Your task to perform on an android device: What's the weather? Image 0: 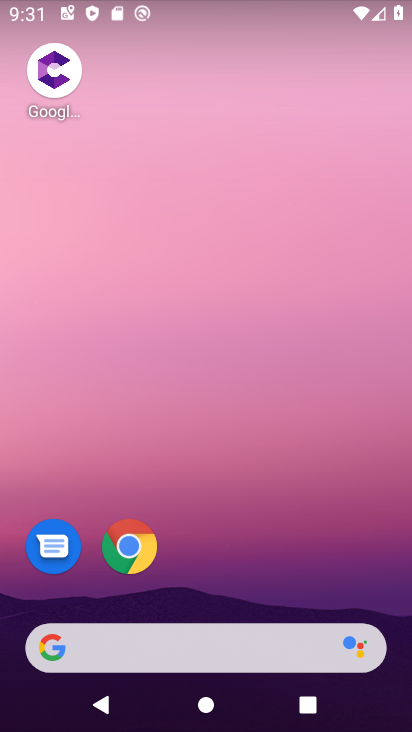
Step 0: drag from (287, 490) to (113, 25)
Your task to perform on an android device: What's the weather? Image 1: 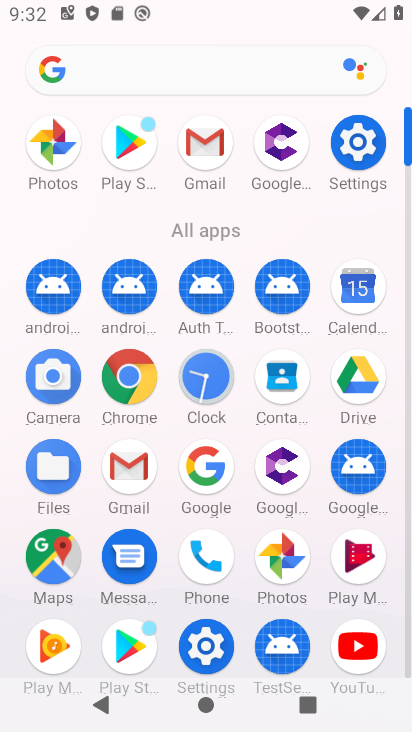
Step 1: click (216, 478)
Your task to perform on an android device: What's the weather? Image 2: 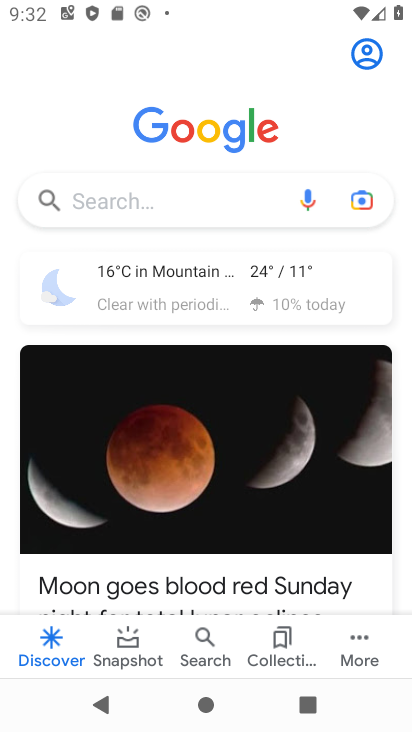
Step 2: click (281, 304)
Your task to perform on an android device: What's the weather? Image 3: 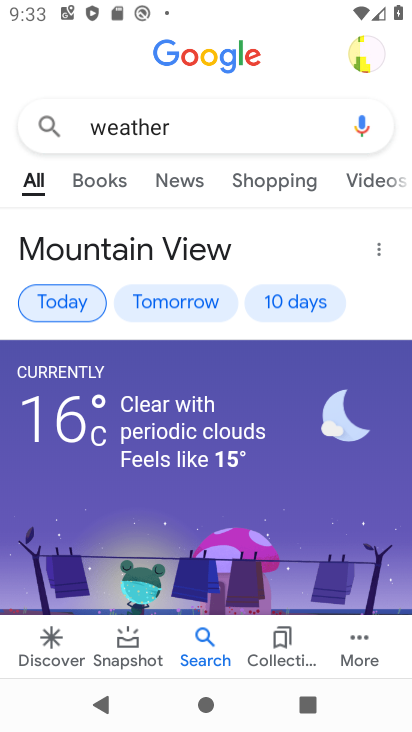
Step 3: task complete